Your task to perform on an android device: View the shopping cart on target.com. Add "logitech g pro" to the cart on target.com, then select checkout. Image 0: 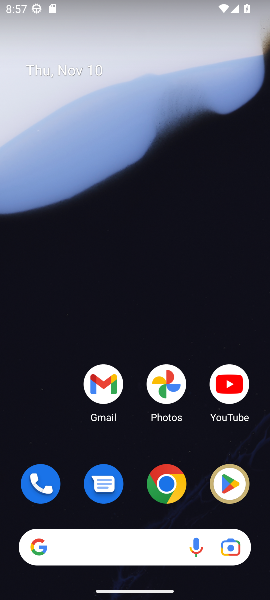
Step 0: click (168, 487)
Your task to perform on an android device: View the shopping cart on target.com. Add "logitech g pro" to the cart on target.com, then select checkout. Image 1: 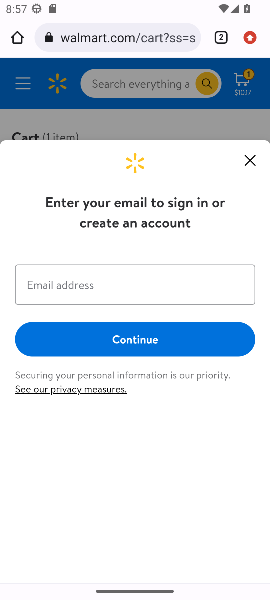
Step 1: click (109, 41)
Your task to perform on an android device: View the shopping cart on target.com. Add "logitech g pro" to the cart on target.com, then select checkout. Image 2: 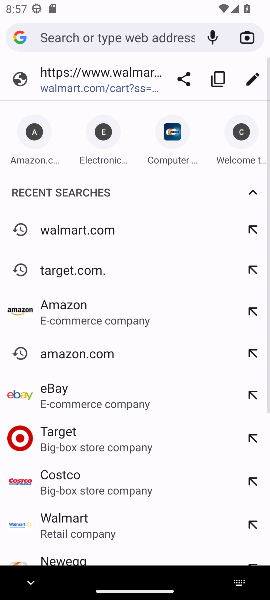
Step 2: click (79, 273)
Your task to perform on an android device: View the shopping cart on target.com. Add "logitech g pro" to the cart on target.com, then select checkout. Image 3: 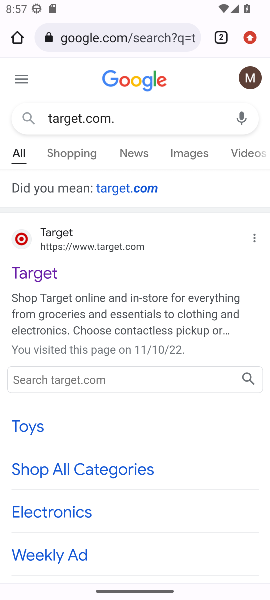
Step 3: click (71, 258)
Your task to perform on an android device: View the shopping cart on target.com. Add "logitech g pro" to the cart on target.com, then select checkout. Image 4: 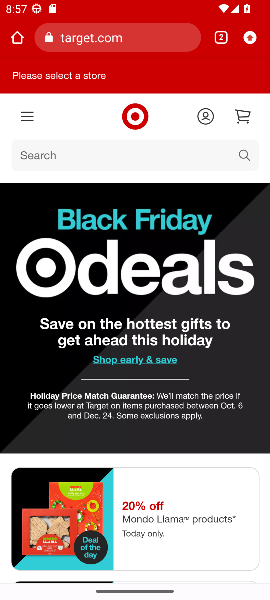
Step 4: click (245, 117)
Your task to perform on an android device: View the shopping cart on target.com. Add "logitech g pro" to the cart on target.com, then select checkout. Image 5: 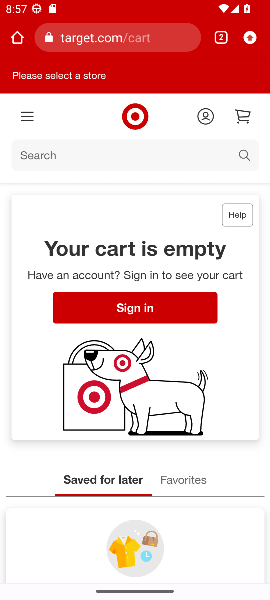
Step 5: click (242, 155)
Your task to perform on an android device: View the shopping cart on target.com. Add "logitech g pro" to the cart on target.com, then select checkout. Image 6: 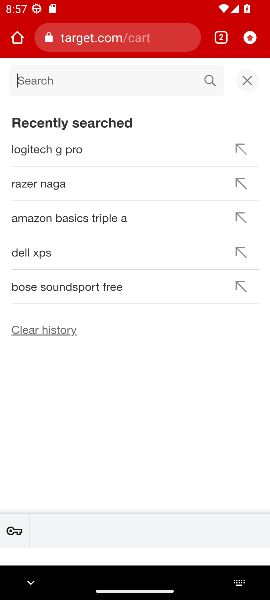
Step 6: type "logitech g pro"
Your task to perform on an android device: View the shopping cart on target.com. Add "logitech g pro" to the cart on target.com, then select checkout. Image 7: 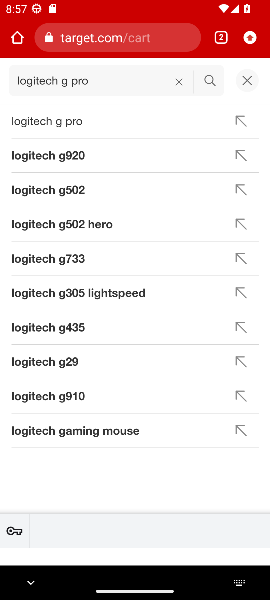
Step 7: click (27, 123)
Your task to perform on an android device: View the shopping cart on target.com. Add "logitech g pro" to the cart on target.com, then select checkout. Image 8: 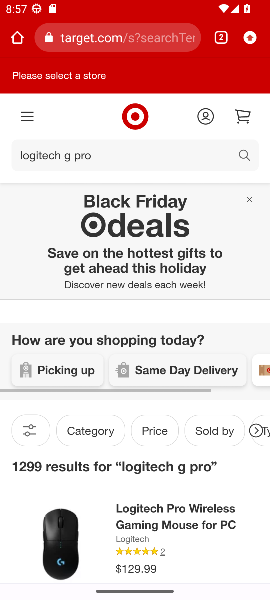
Step 8: task complete